Your task to perform on an android device: Open notification settings Image 0: 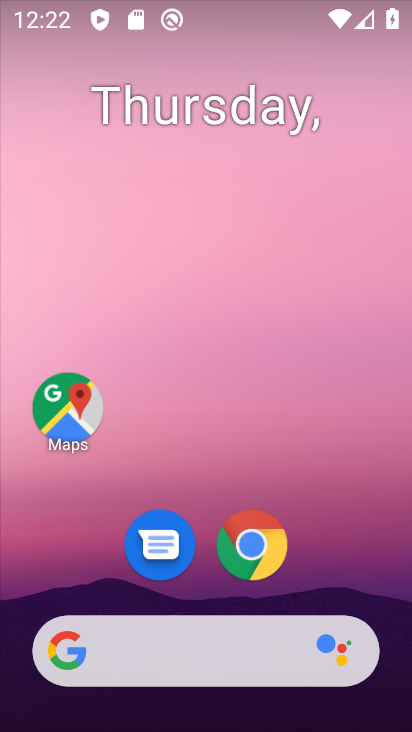
Step 0: drag from (222, 358) to (239, 98)
Your task to perform on an android device: Open notification settings Image 1: 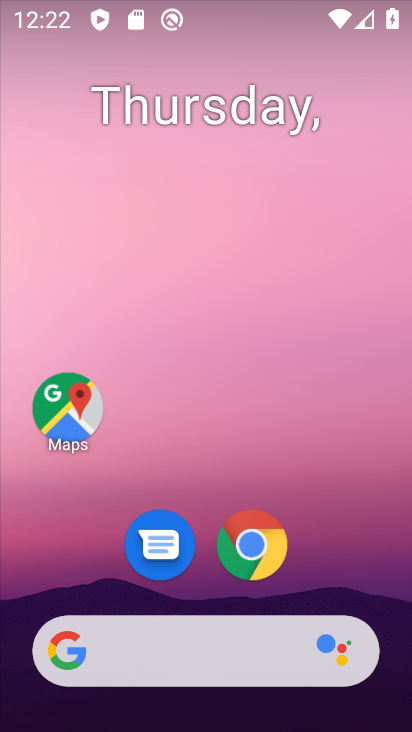
Step 1: drag from (209, 450) to (266, 107)
Your task to perform on an android device: Open notification settings Image 2: 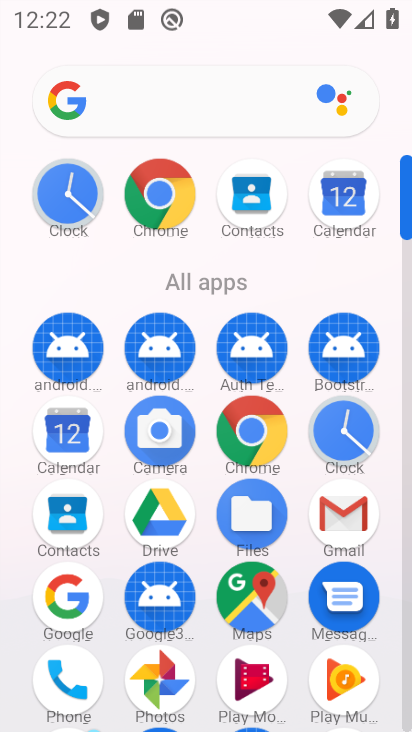
Step 2: drag from (217, 296) to (224, 57)
Your task to perform on an android device: Open notification settings Image 3: 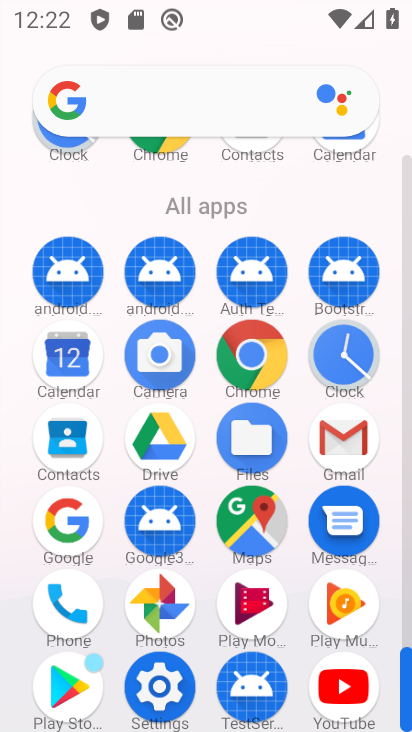
Step 3: click (163, 710)
Your task to perform on an android device: Open notification settings Image 4: 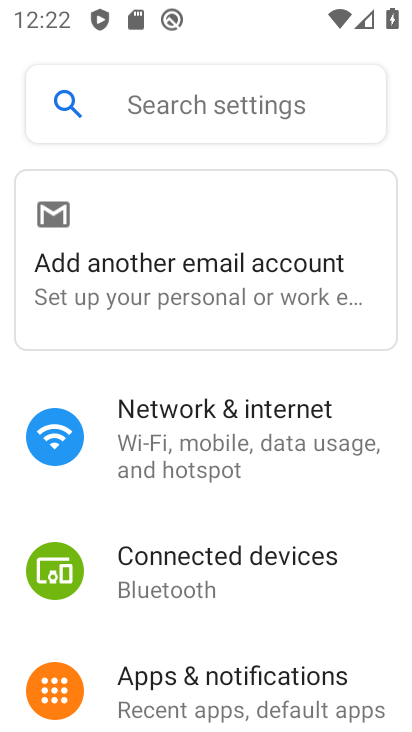
Step 4: drag from (177, 640) to (157, 411)
Your task to perform on an android device: Open notification settings Image 5: 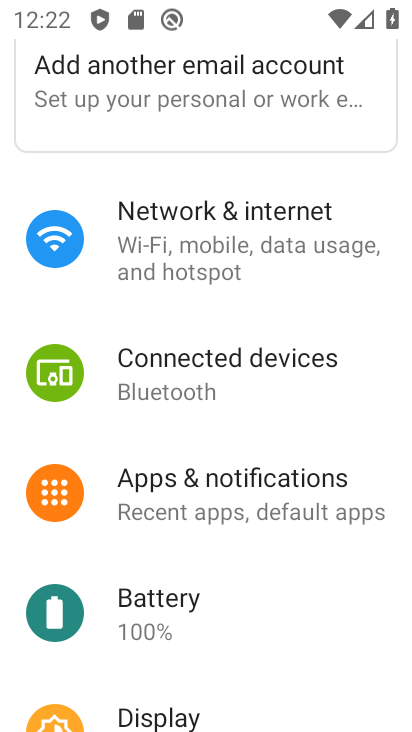
Step 5: click (231, 500)
Your task to perform on an android device: Open notification settings Image 6: 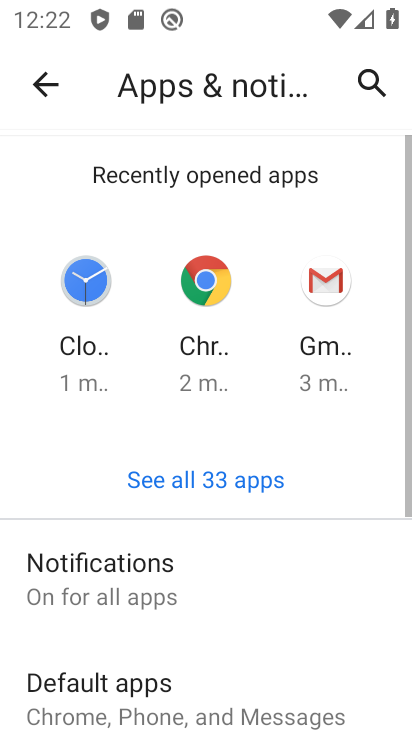
Step 6: click (194, 580)
Your task to perform on an android device: Open notification settings Image 7: 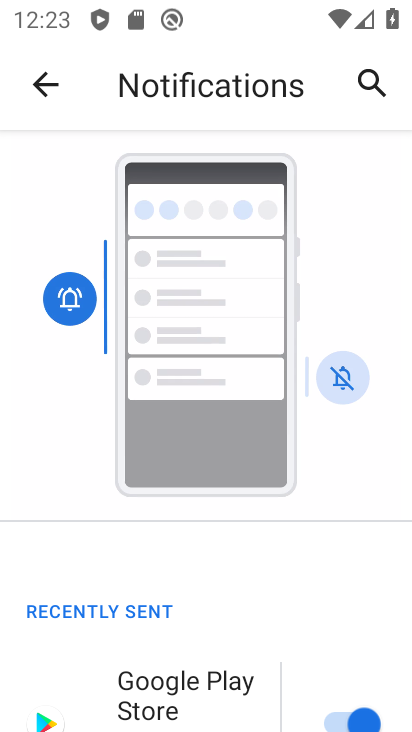
Step 7: task complete